Your task to perform on an android device: check the backup settings in the google photos Image 0: 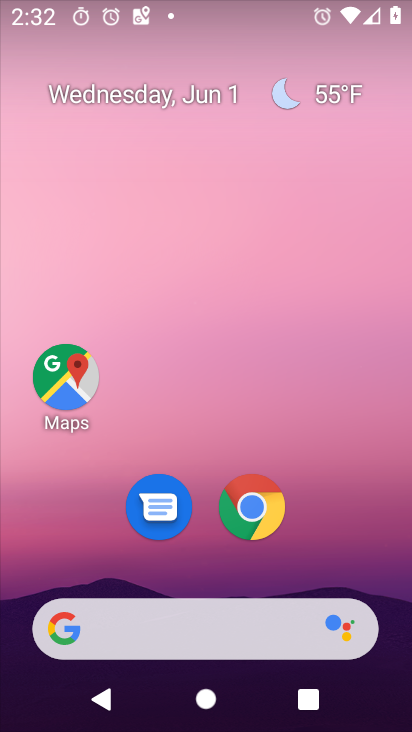
Step 0: drag from (351, 574) to (361, 13)
Your task to perform on an android device: check the backup settings in the google photos Image 1: 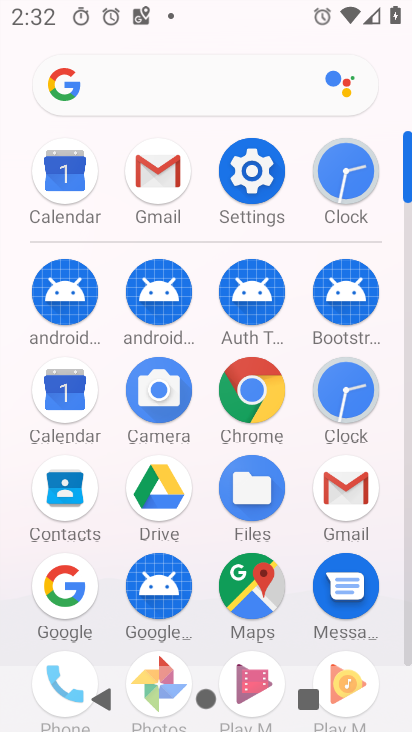
Step 1: click (408, 535)
Your task to perform on an android device: check the backup settings in the google photos Image 2: 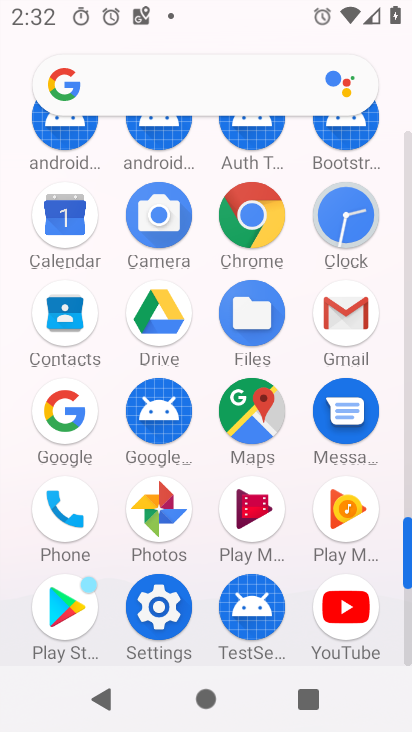
Step 2: click (156, 504)
Your task to perform on an android device: check the backup settings in the google photos Image 3: 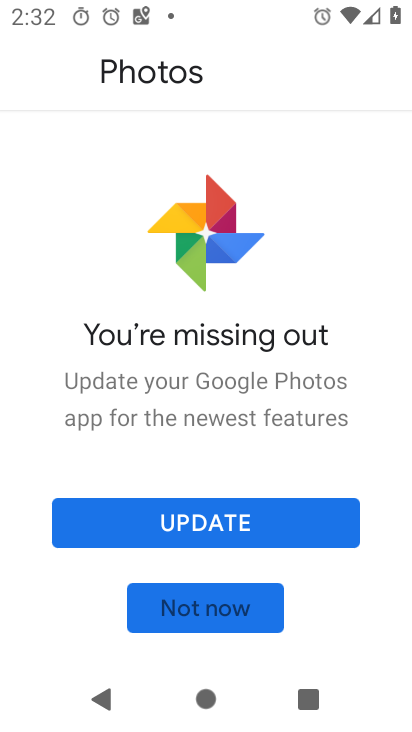
Step 3: click (220, 606)
Your task to perform on an android device: check the backup settings in the google photos Image 4: 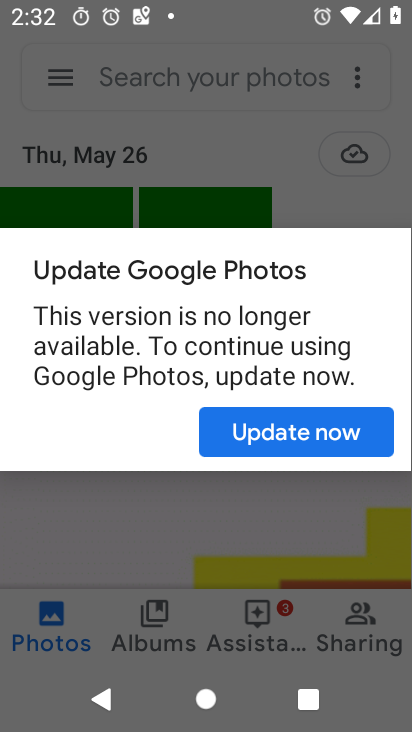
Step 4: click (277, 449)
Your task to perform on an android device: check the backup settings in the google photos Image 5: 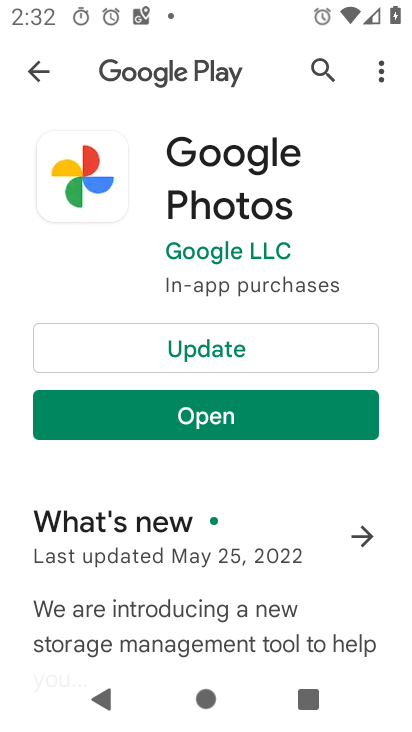
Step 5: click (150, 417)
Your task to perform on an android device: check the backup settings in the google photos Image 6: 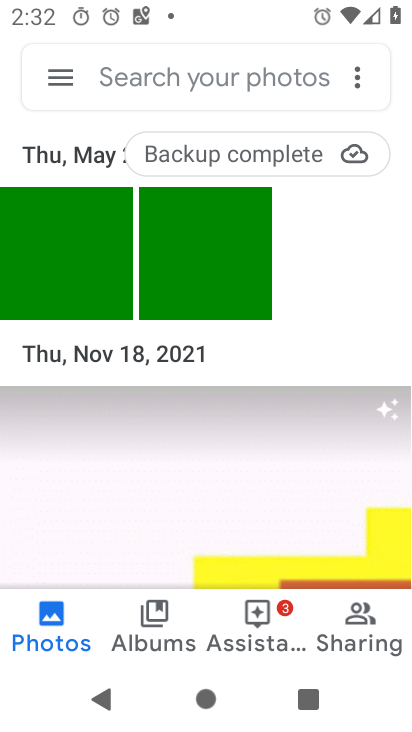
Step 6: click (49, 75)
Your task to perform on an android device: check the backup settings in the google photos Image 7: 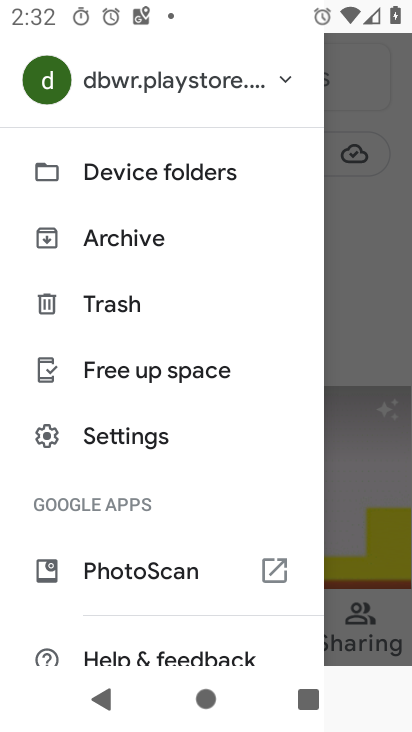
Step 7: click (120, 439)
Your task to perform on an android device: check the backup settings in the google photos Image 8: 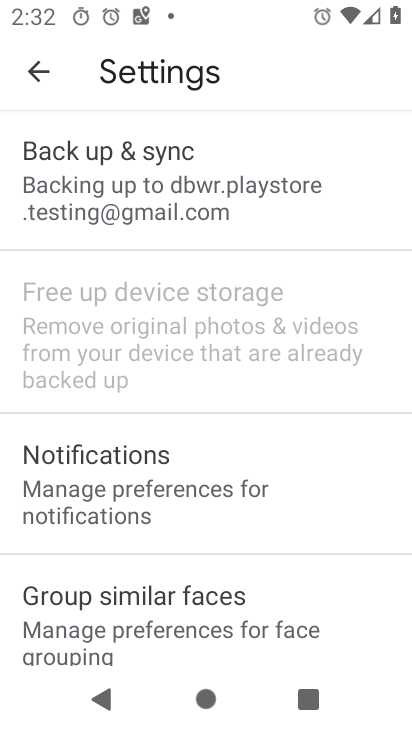
Step 8: click (102, 185)
Your task to perform on an android device: check the backup settings in the google photos Image 9: 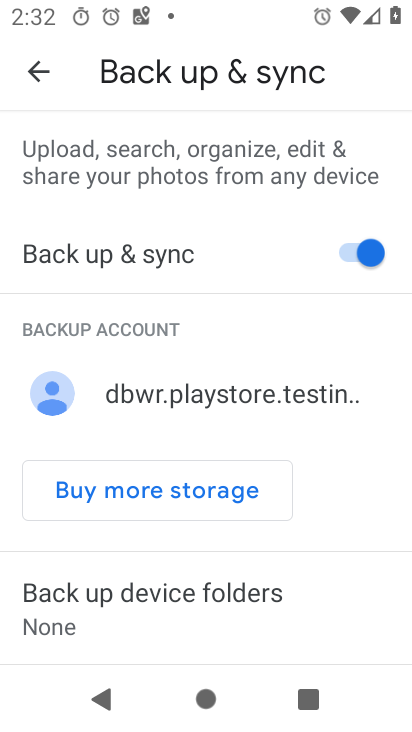
Step 9: task complete